Your task to perform on an android device: open app "NewsBreak: Local News & Alerts" (install if not already installed) and enter user name: "switch@outlook.com" and password: "fabrics" Image 0: 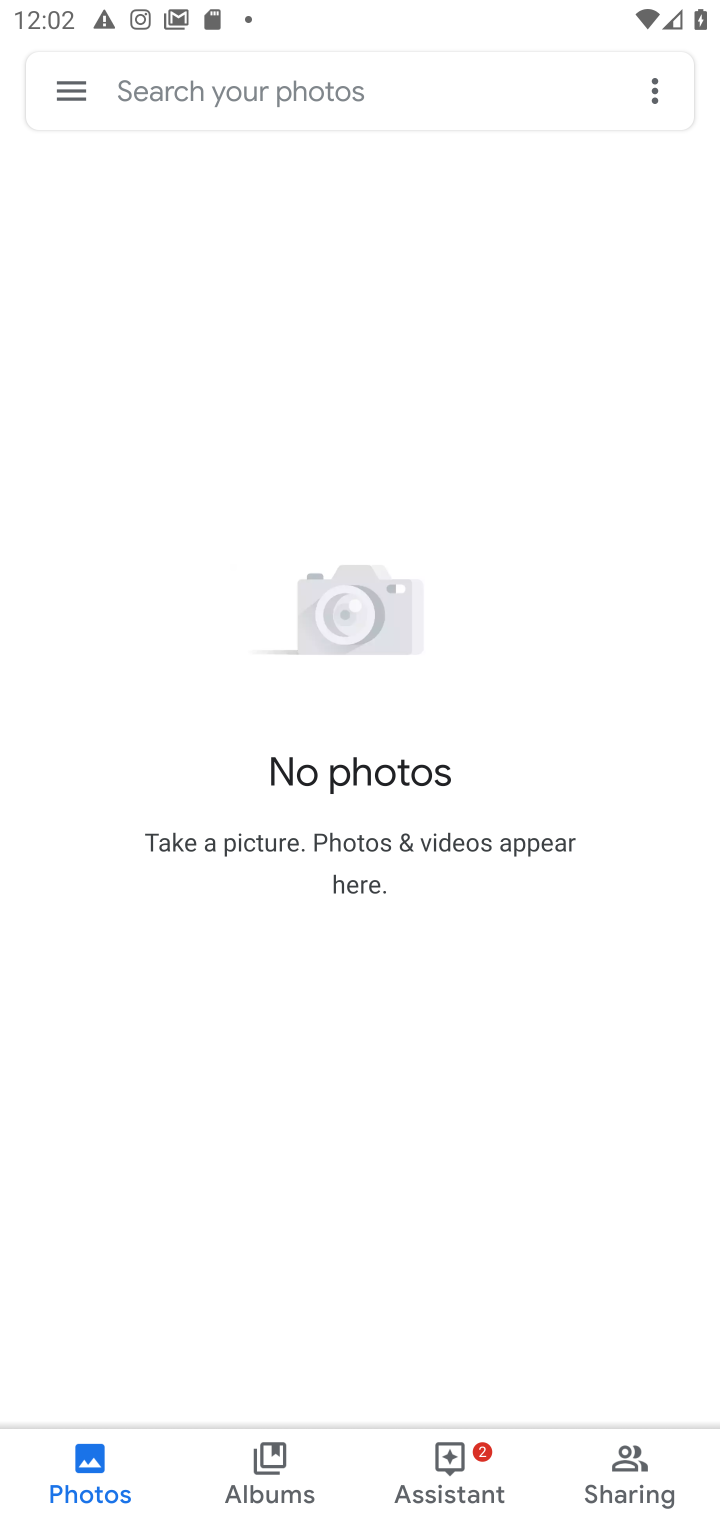
Step 0: press home button
Your task to perform on an android device: open app "NewsBreak: Local News & Alerts" (install if not already installed) and enter user name: "switch@outlook.com" and password: "fabrics" Image 1: 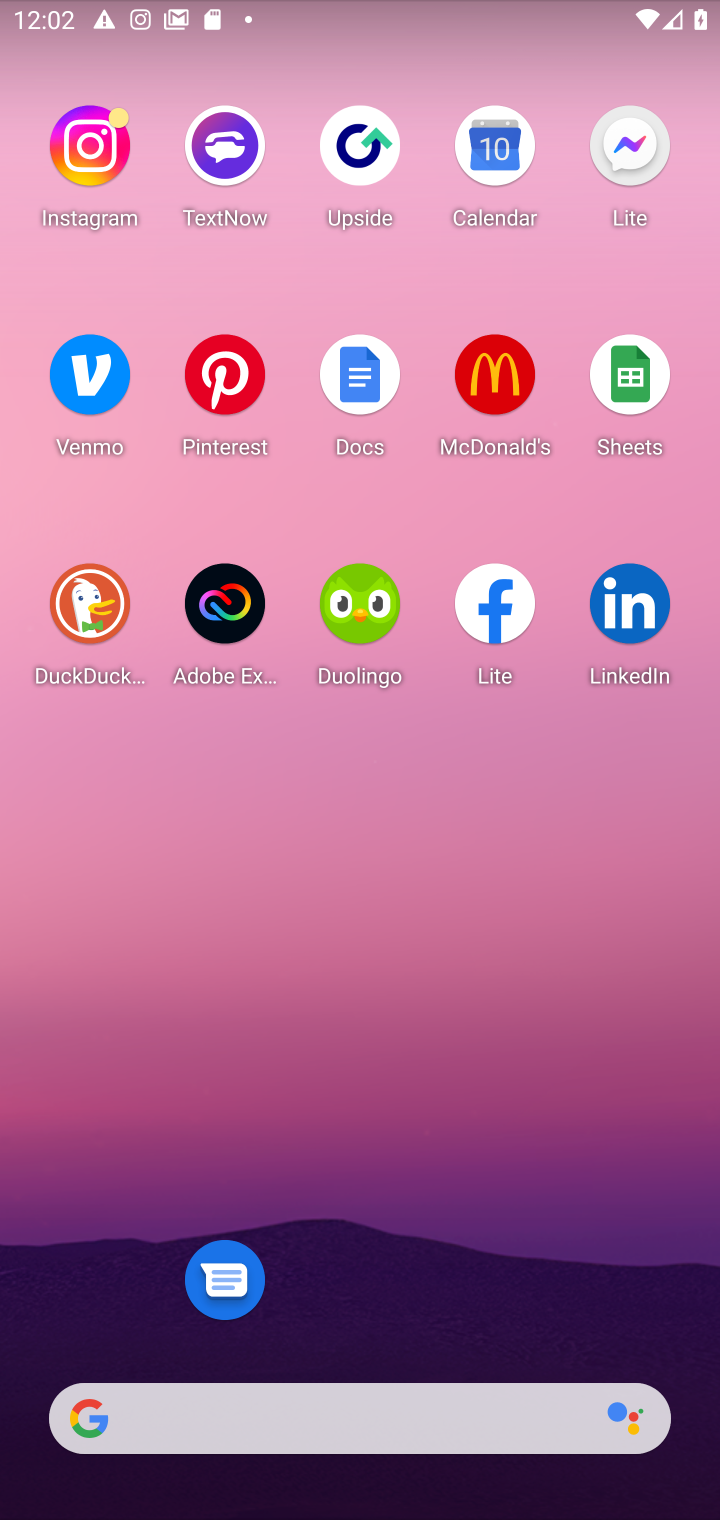
Step 1: drag from (284, 1359) to (344, 57)
Your task to perform on an android device: open app "NewsBreak: Local News & Alerts" (install if not already installed) and enter user name: "switch@outlook.com" and password: "fabrics" Image 2: 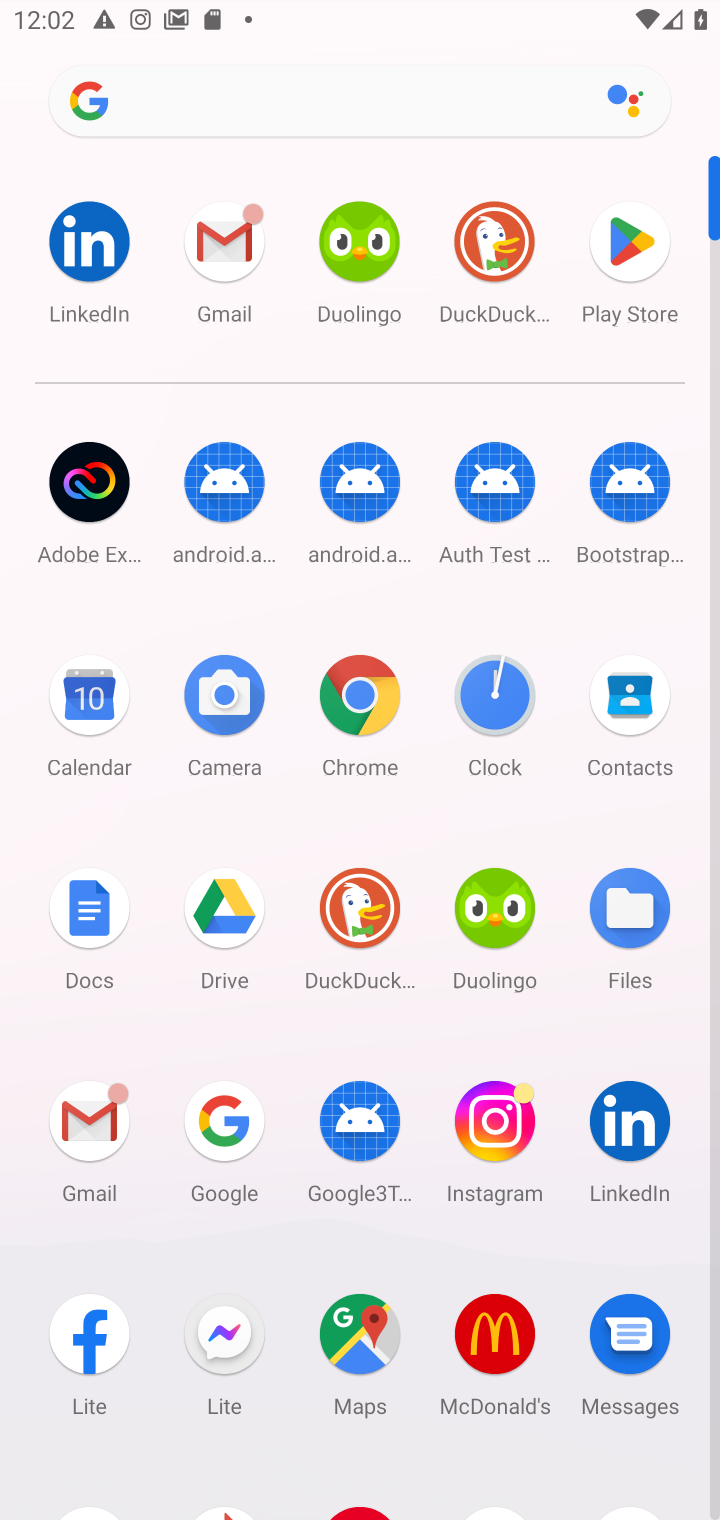
Step 2: click (602, 257)
Your task to perform on an android device: open app "NewsBreak: Local News & Alerts" (install if not already installed) and enter user name: "switch@outlook.com" and password: "fabrics" Image 3: 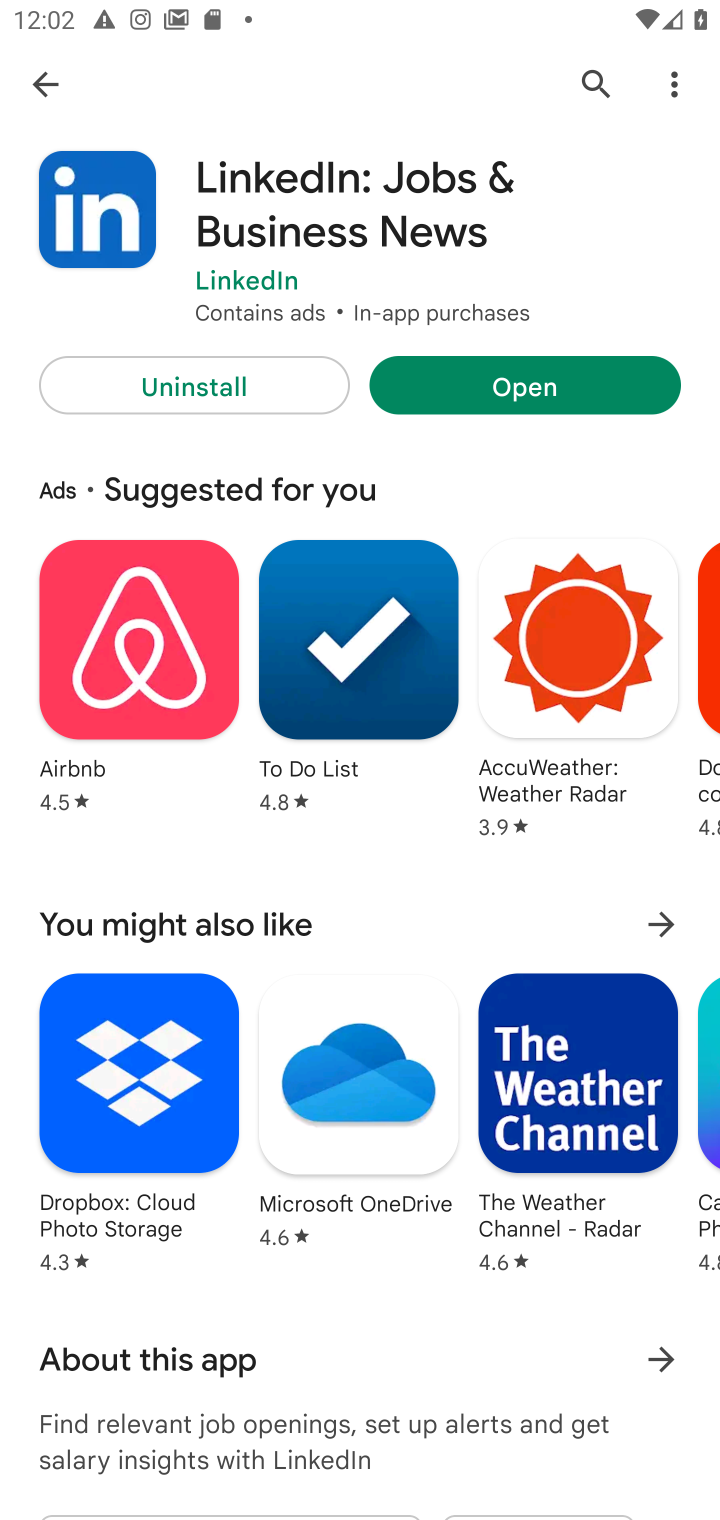
Step 3: click (587, 79)
Your task to perform on an android device: open app "NewsBreak: Local News & Alerts" (install if not already installed) and enter user name: "switch@outlook.com" and password: "fabrics" Image 4: 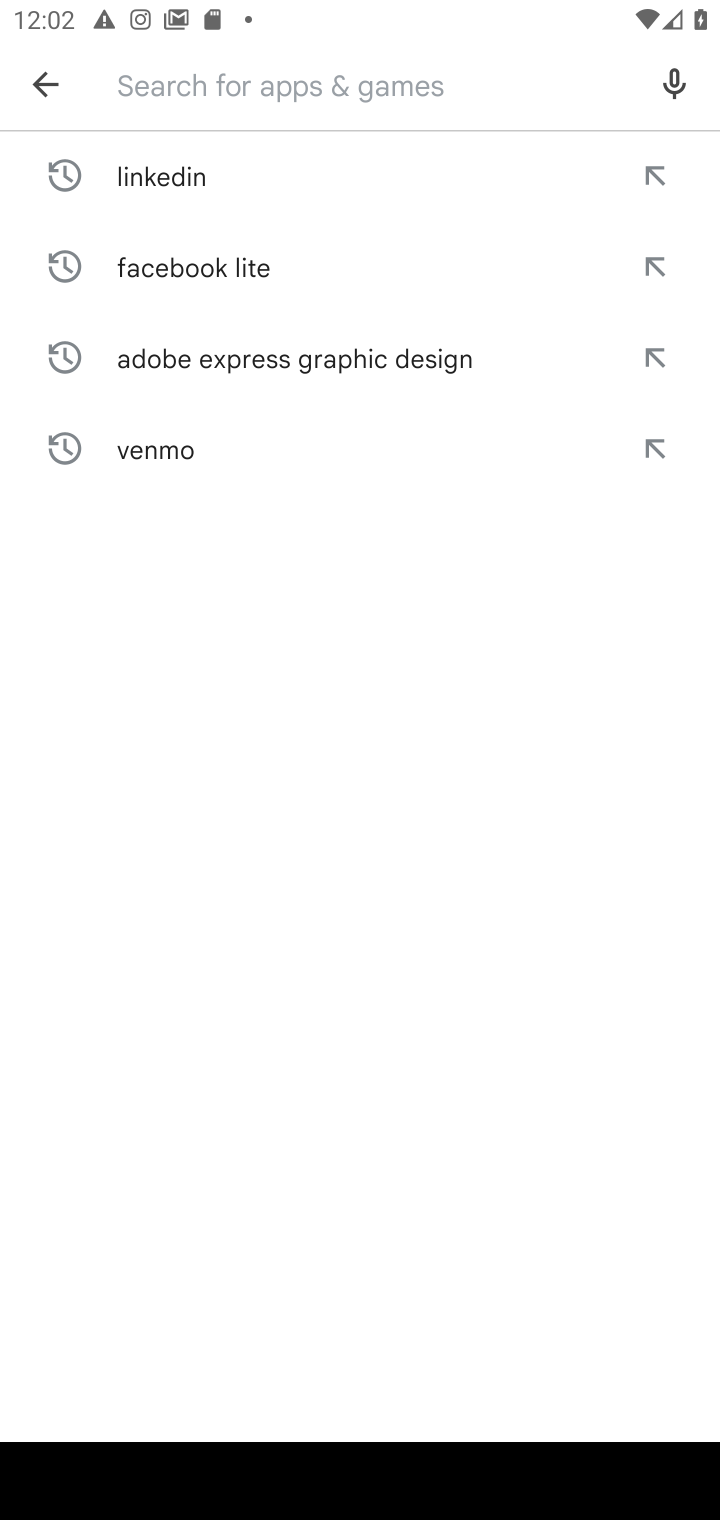
Step 4: type "NewsBreak: Local News & Alerts"
Your task to perform on an android device: open app "NewsBreak: Local News & Alerts" (install if not already installed) and enter user name: "switch@outlook.com" and password: "fabrics" Image 5: 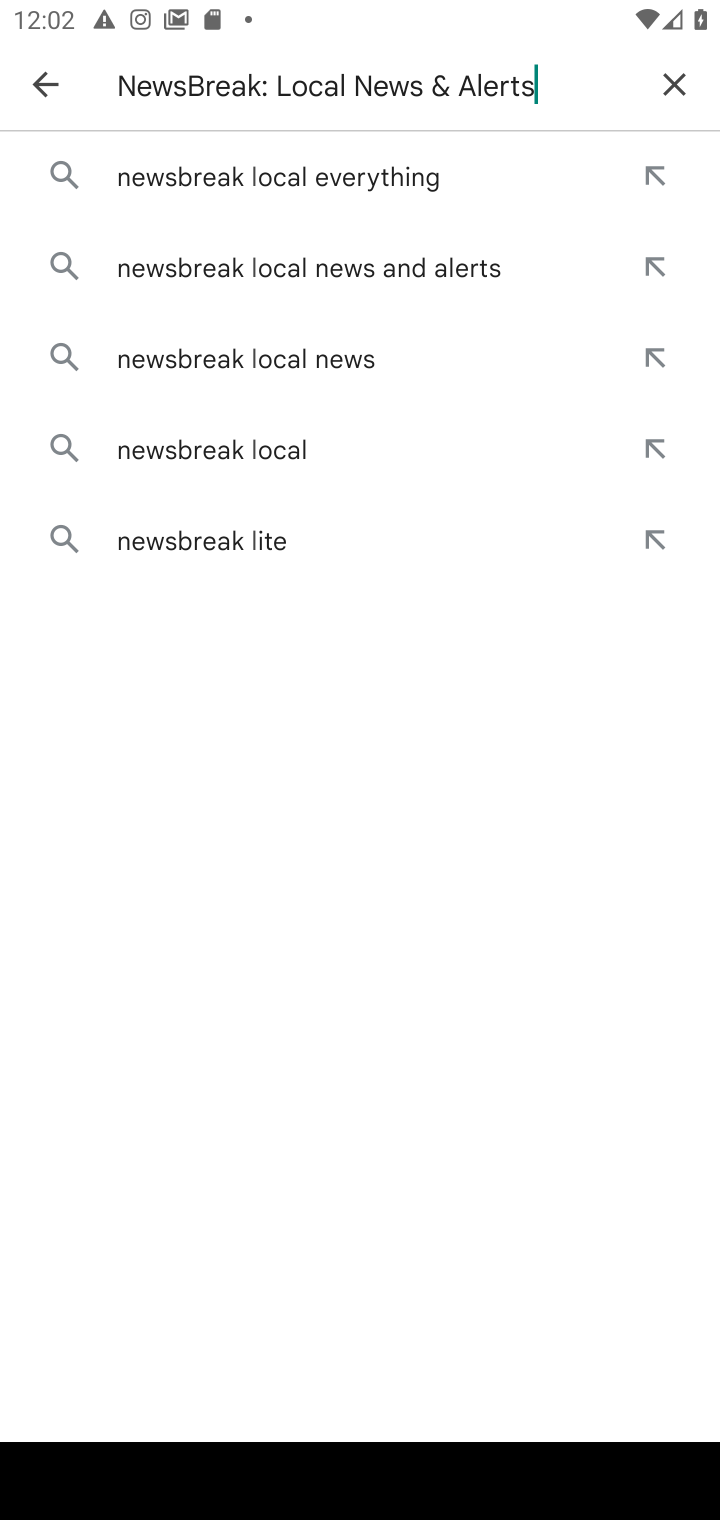
Step 5: type ""
Your task to perform on an android device: open app "NewsBreak: Local News & Alerts" (install if not already installed) and enter user name: "switch@outlook.com" and password: "fabrics" Image 6: 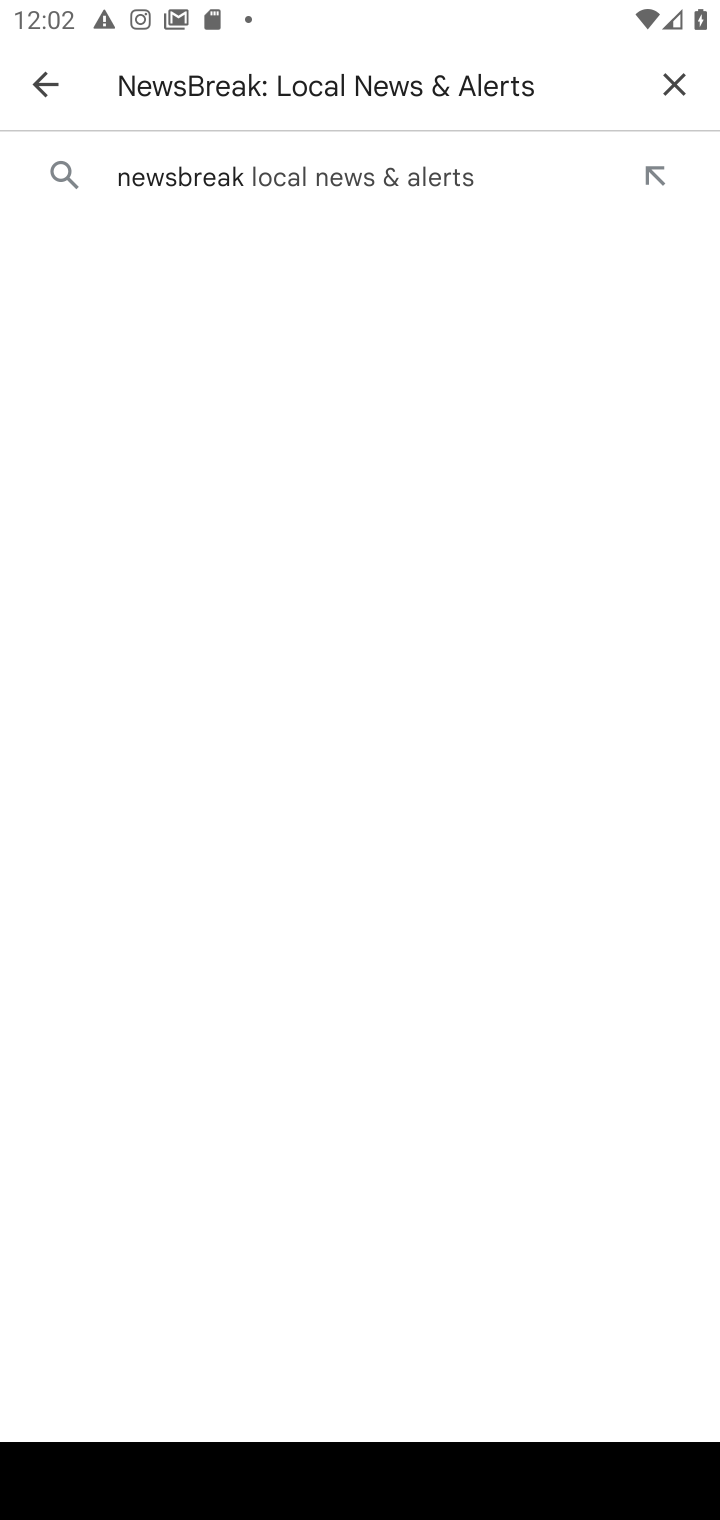
Step 6: click (214, 161)
Your task to perform on an android device: open app "NewsBreak: Local News & Alerts" (install if not already installed) and enter user name: "switch@outlook.com" and password: "fabrics" Image 7: 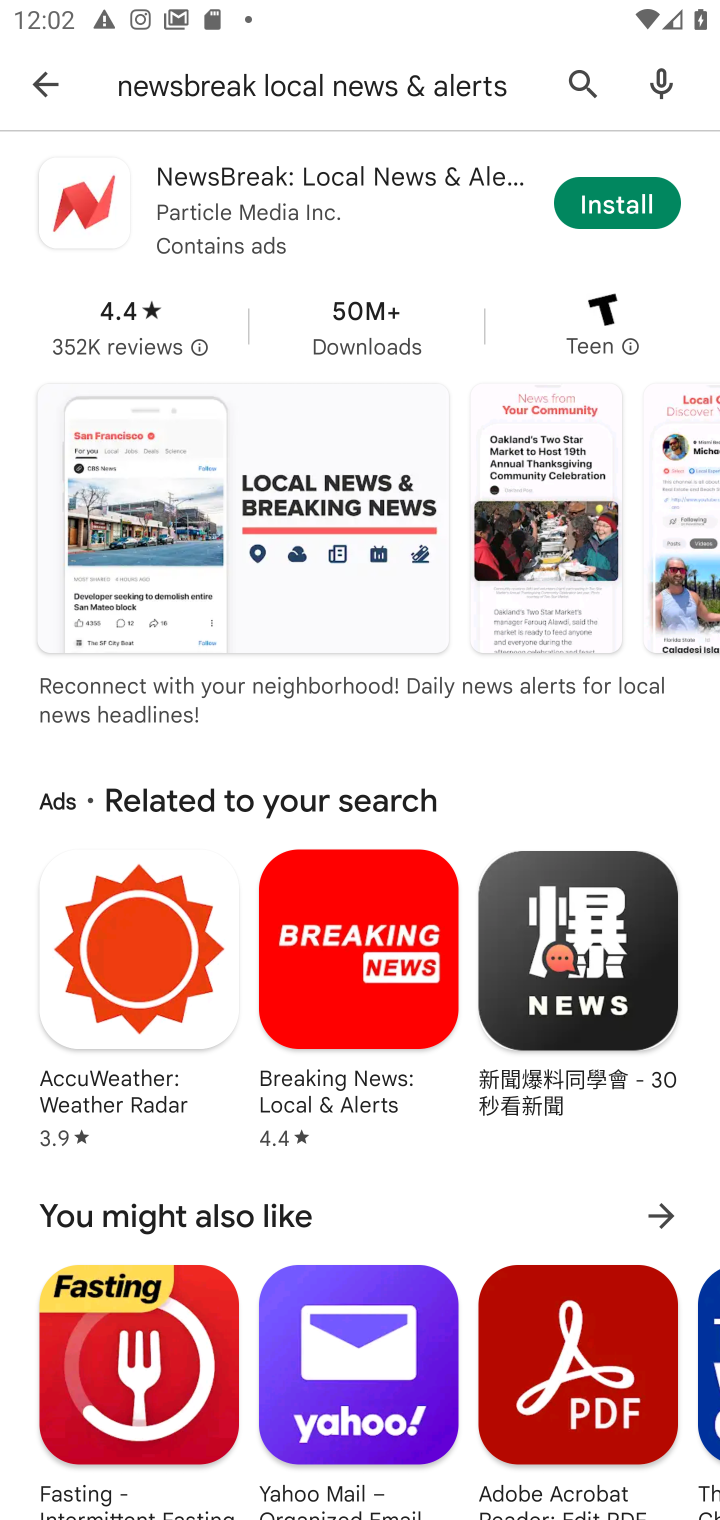
Step 7: click (650, 204)
Your task to perform on an android device: open app "NewsBreak: Local News & Alerts" (install if not already installed) and enter user name: "switch@outlook.com" and password: "fabrics" Image 8: 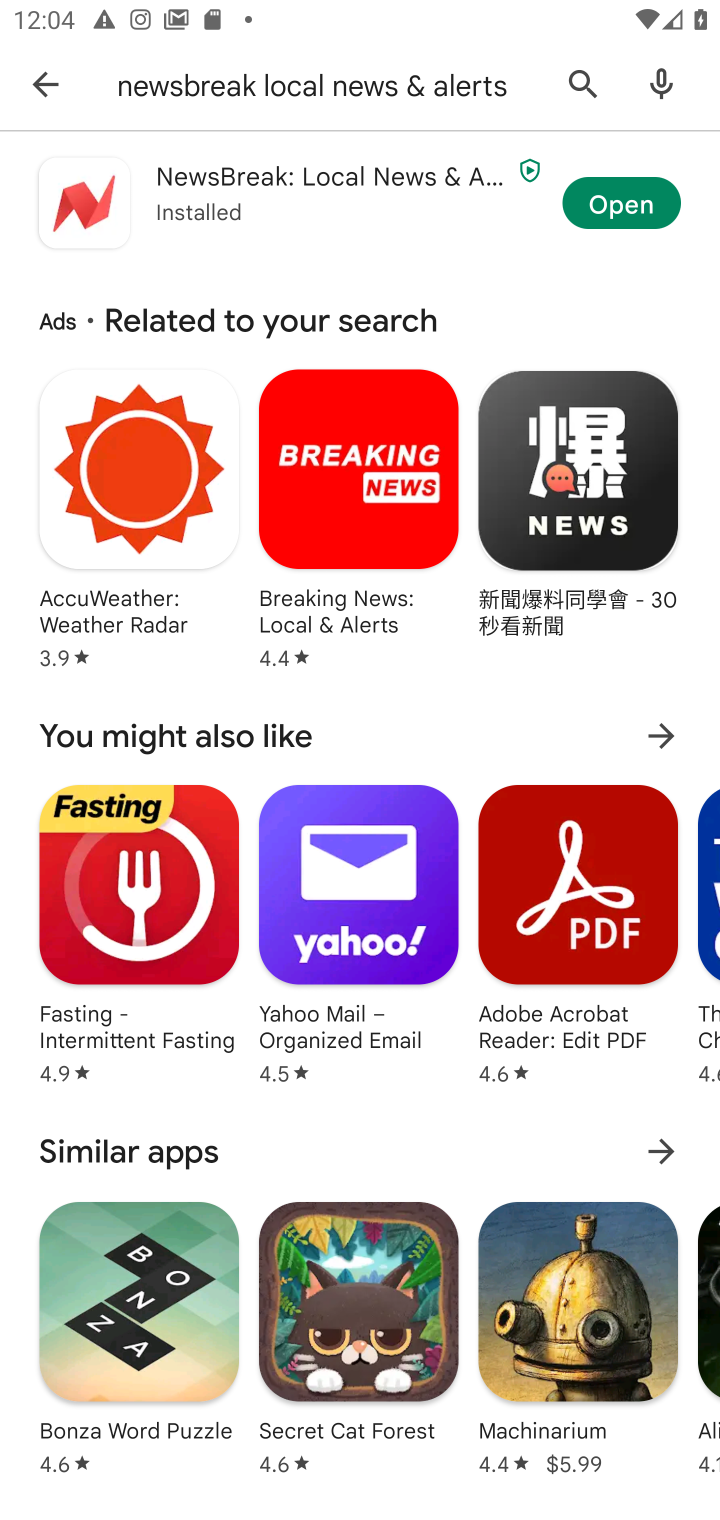
Step 8: click (582, 197)
Your task to perform on an android device: open app "NewsBreak: Local News & Alerts" (install if not already installed) and enter user name: "switch@outlook.com" and password: "fabrics" Image 9: 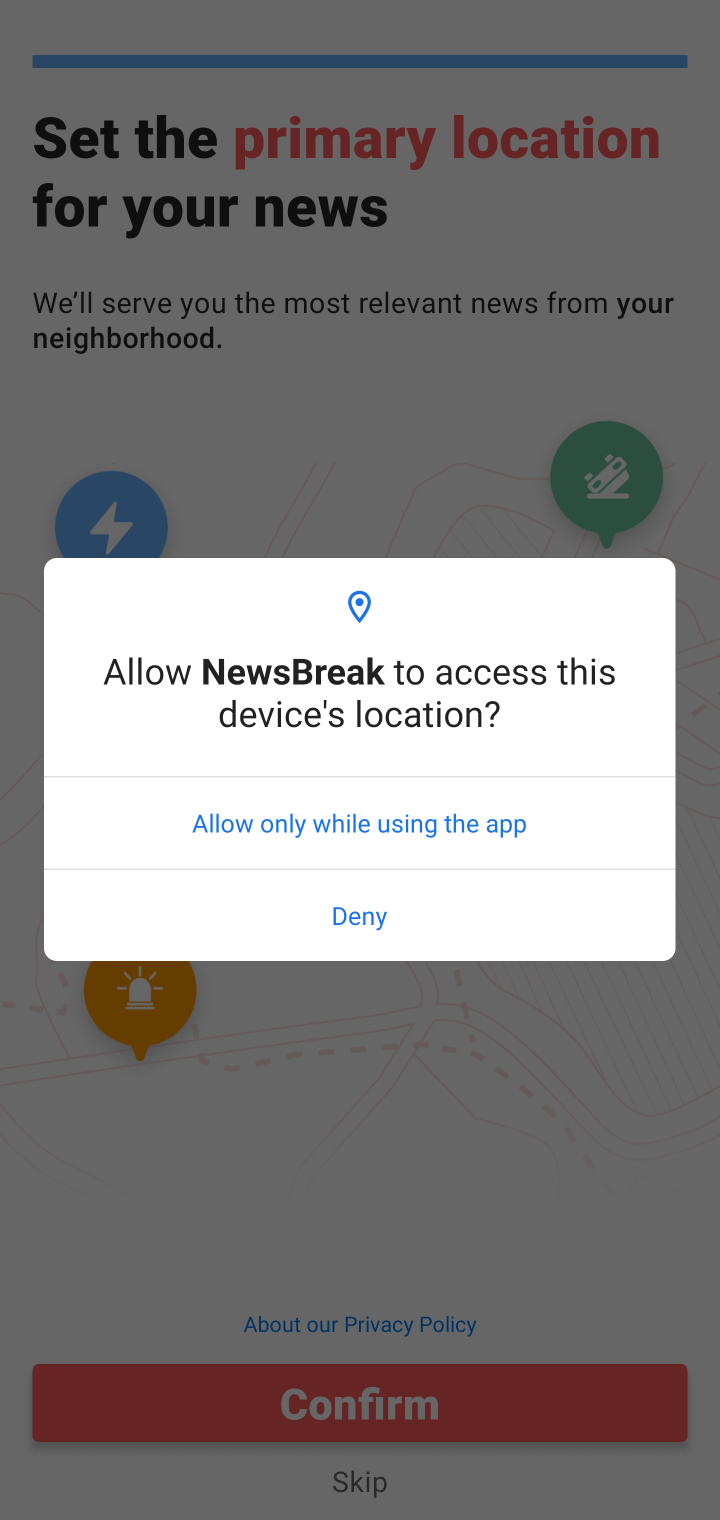
Step 9: click (354, 823)
Your task to perform on an android device: open app "NewsBreak: Local News & Alerts" (install if not already installed) and enter user name: "switch@outlook.com" and password: "fabrics" Image 10: 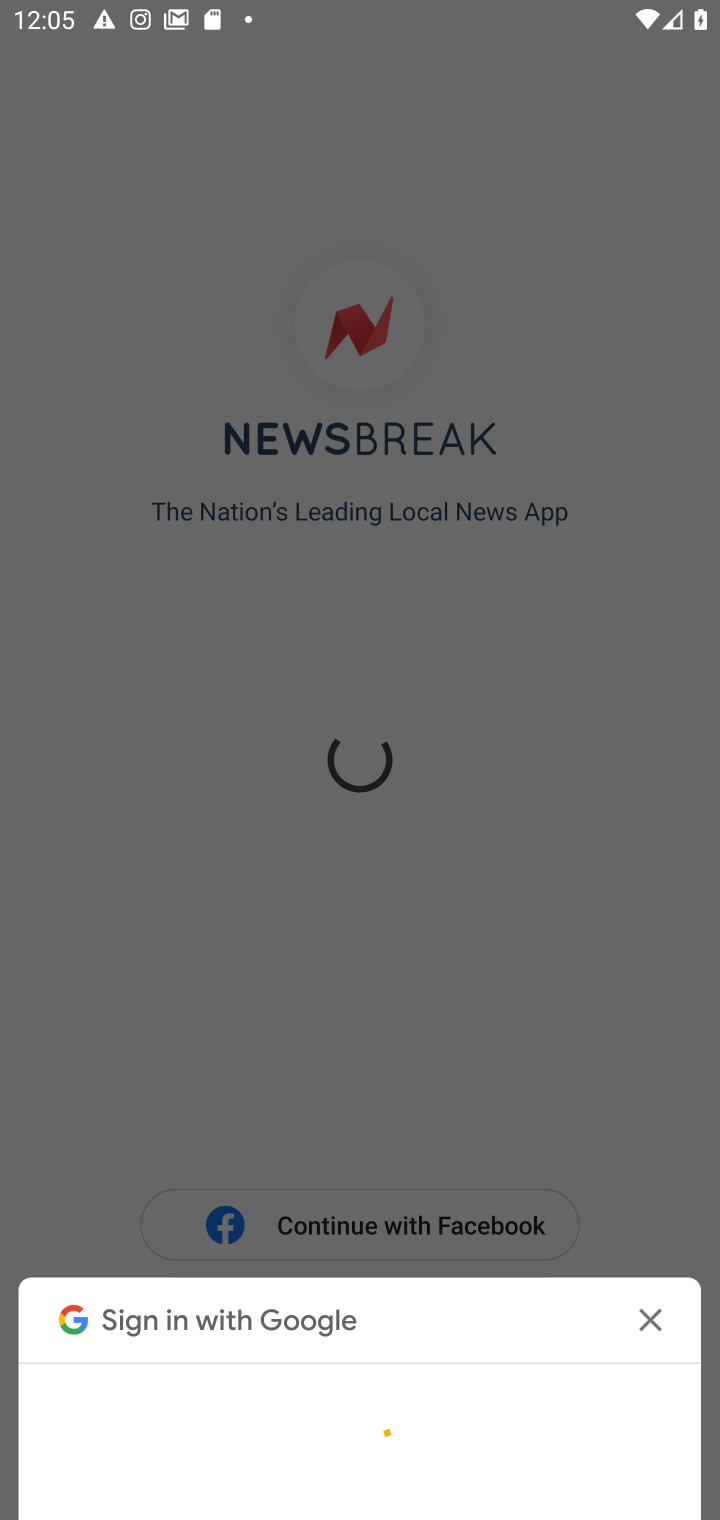
Step 10: click (653, 1316)
Your task to perform on an android device: open app "NewsBreak: Local News & Alerts" (install if not already installed) and enter user name: "switch@outlook.com" and password: "fabrics" Image 11: 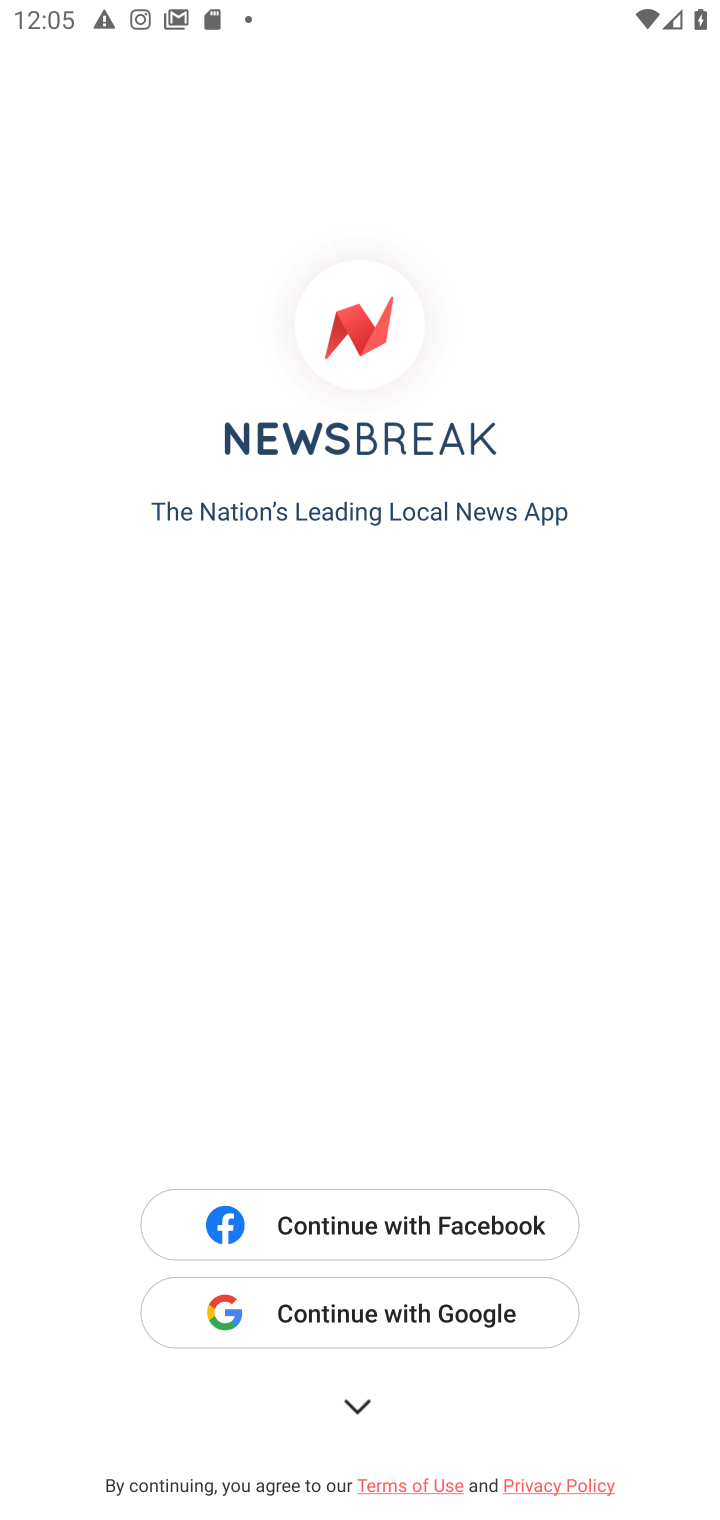
Step 11: click (335, 1401)
Your task to perform on an android device: open app "NewsBreak: Local News & Alerts" (install if not already installed) and enter user name: "switch@outlook.com" and password: "fabrics" Image 12: 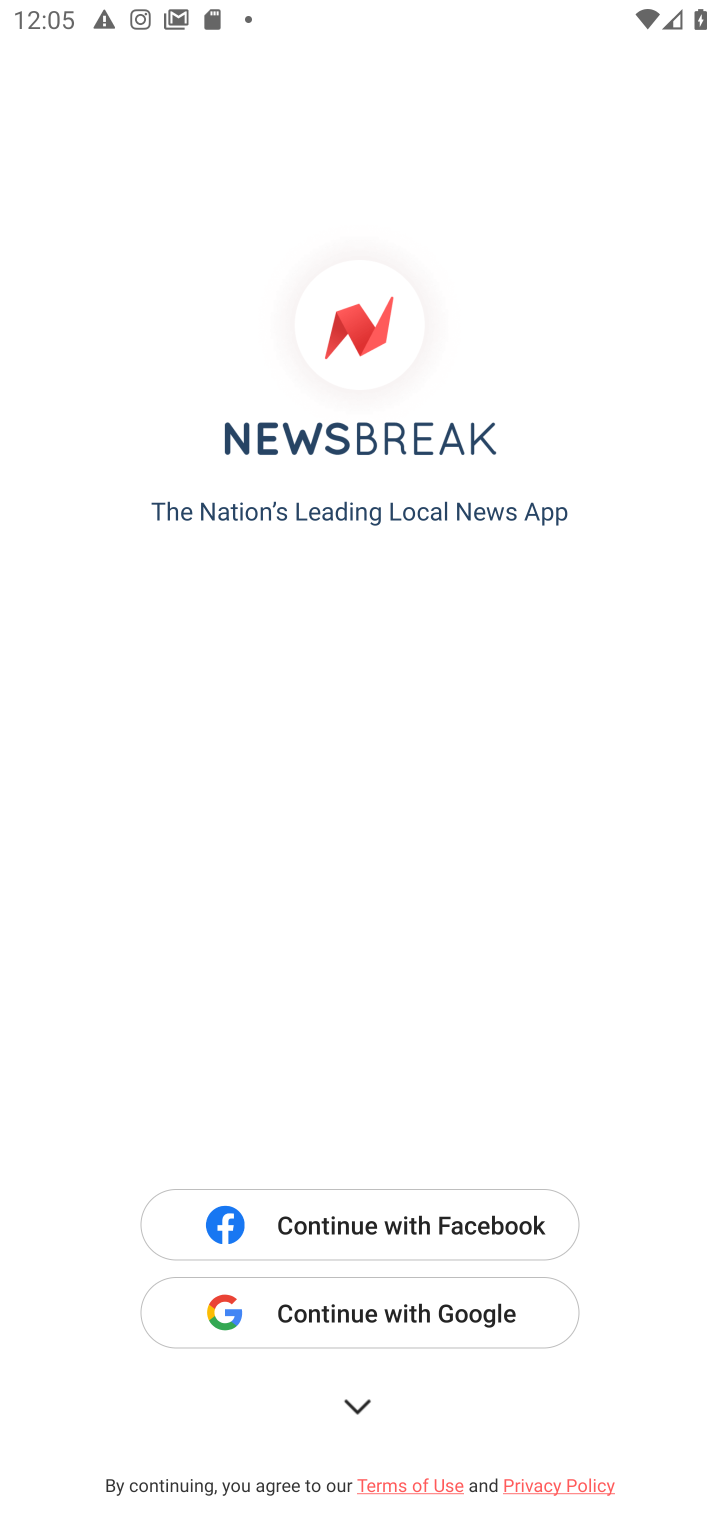
Step 12: click (343, 1389)
Your task to perform on an android device: open app "NewsBreak: Local News & Alerts" (install if not already installed) and enter user name: "switch@outlook.com" and password: "fabrics" Image 13: 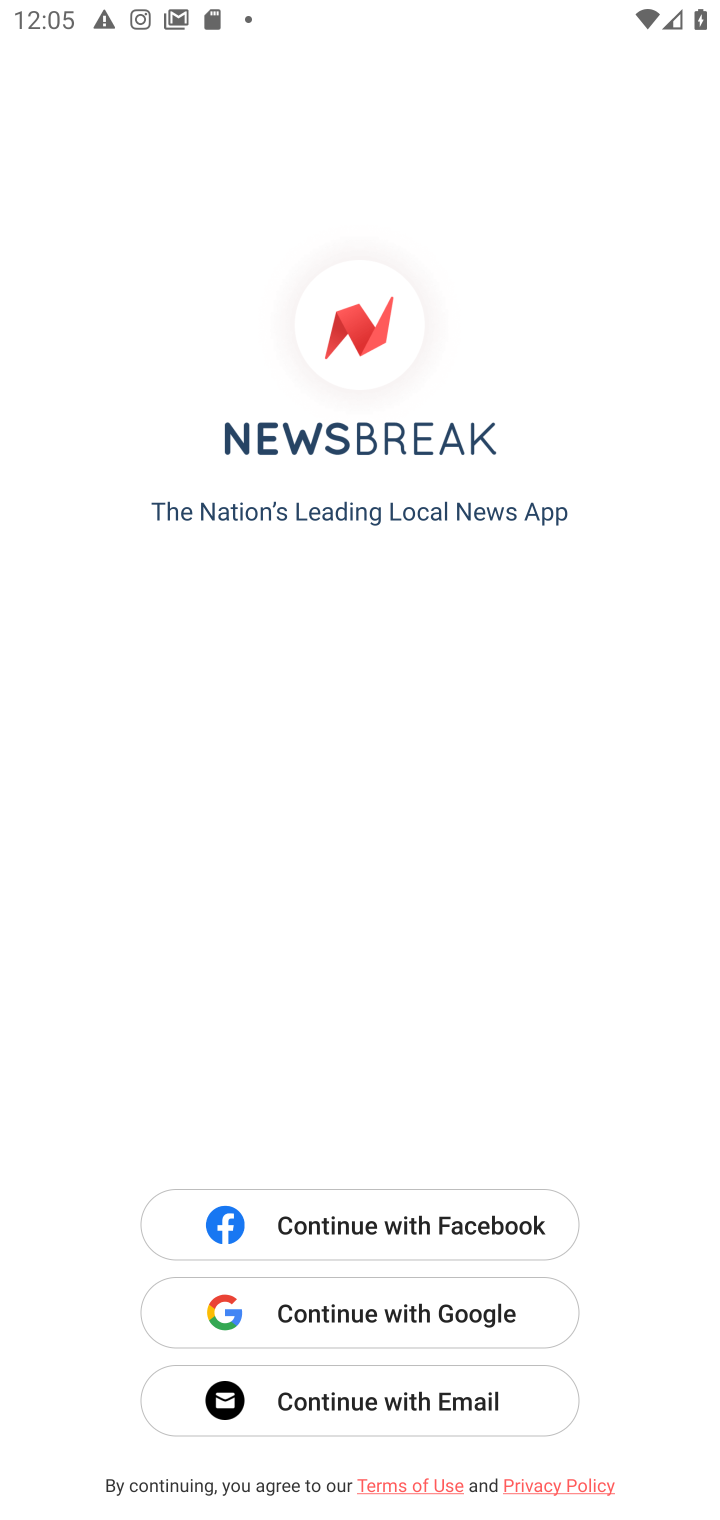
Step 13: drag from (382, 1399) to (328, 482)
Your task to perform on an android device: open app "NewsBreak: Local News & Alerts" (install if not already installed) and enter user name: "switch@outlook.com" and password: "fabrics" Image 14: 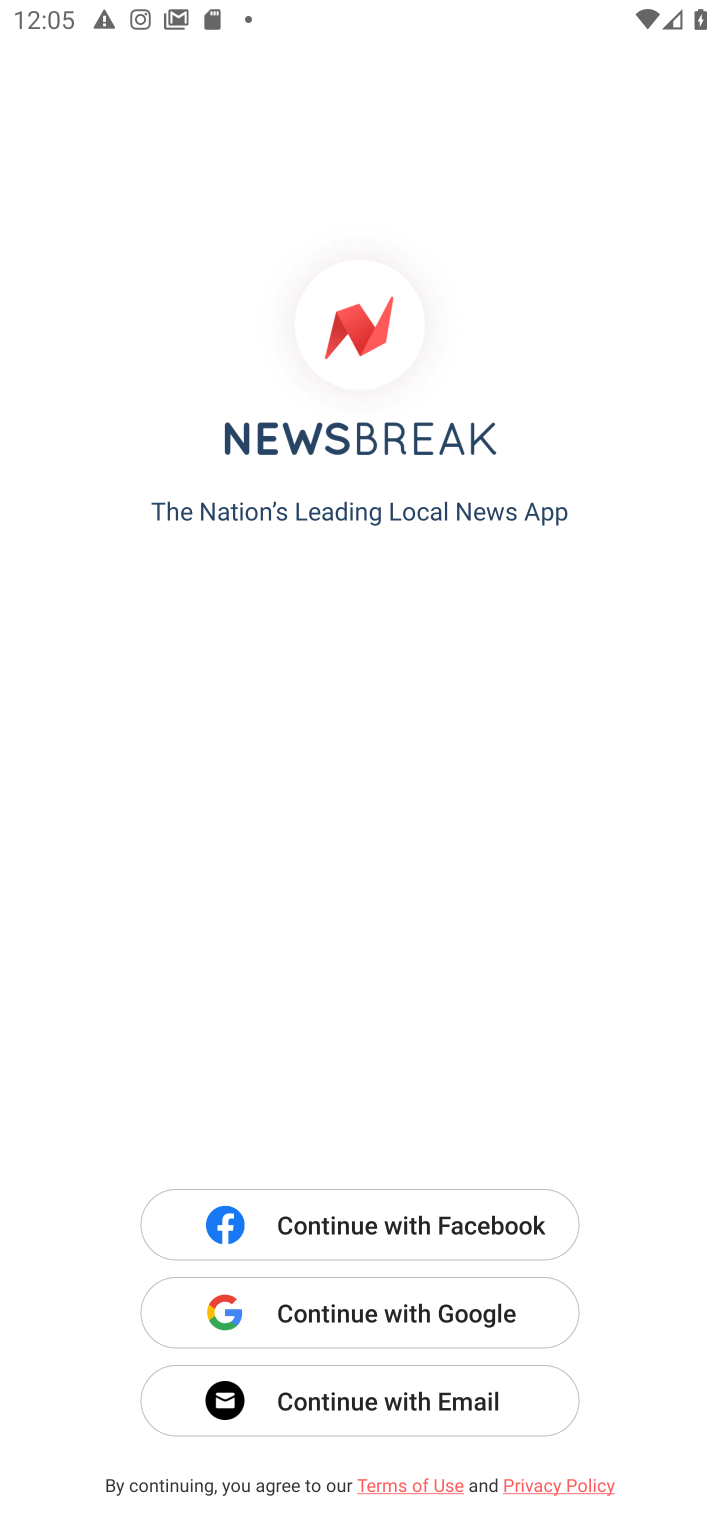
Step 14: click (373, 1308)
Your task to perform on an android device: open app "NewsBreak: Local News & Alerts" (install if not already installed) and enter user name: "switch@outlook.com" and password: "fabrics" Image 15: 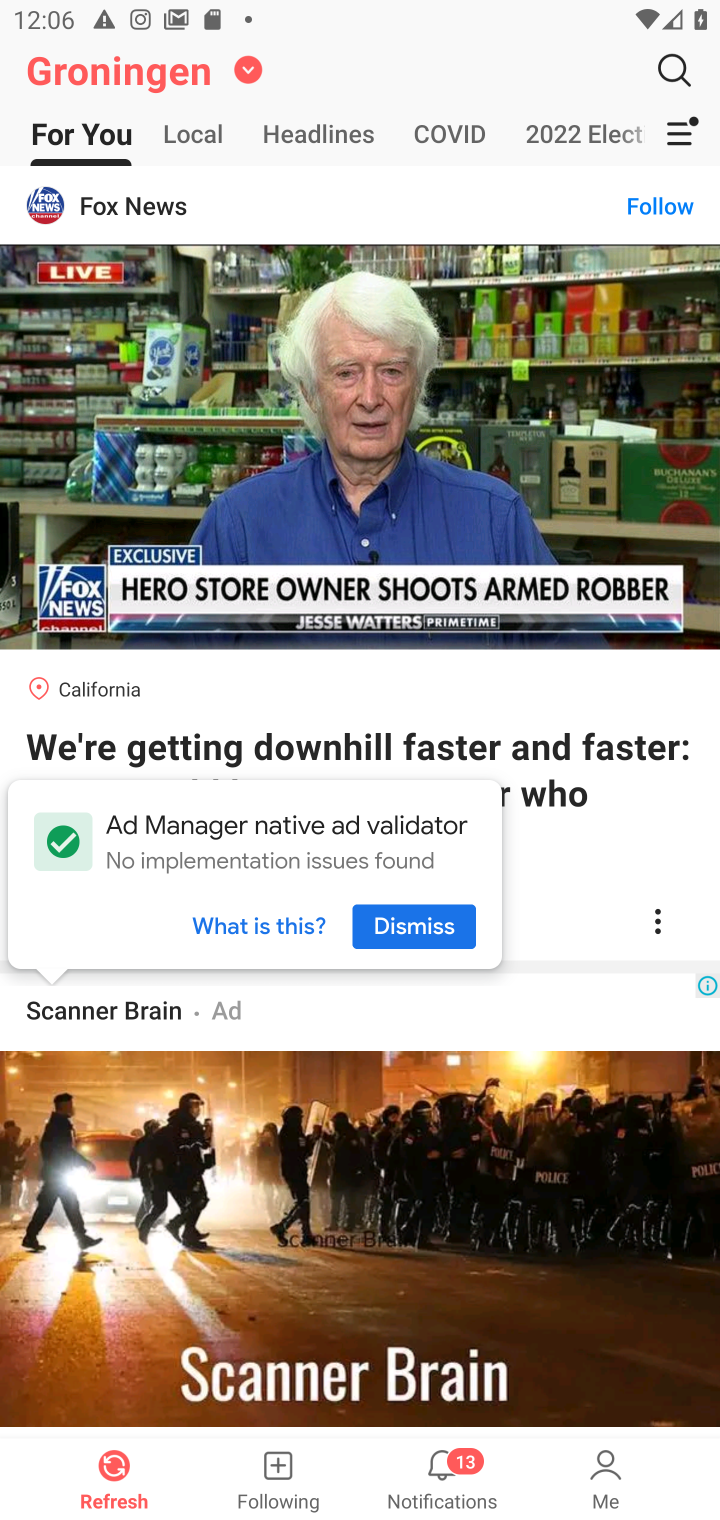
Step 15: task complete